Your task to perform on an android device: Show the shopping cart on bestbuy.com. Add energizer triple a to the cart on bestbuy.com Image 0: 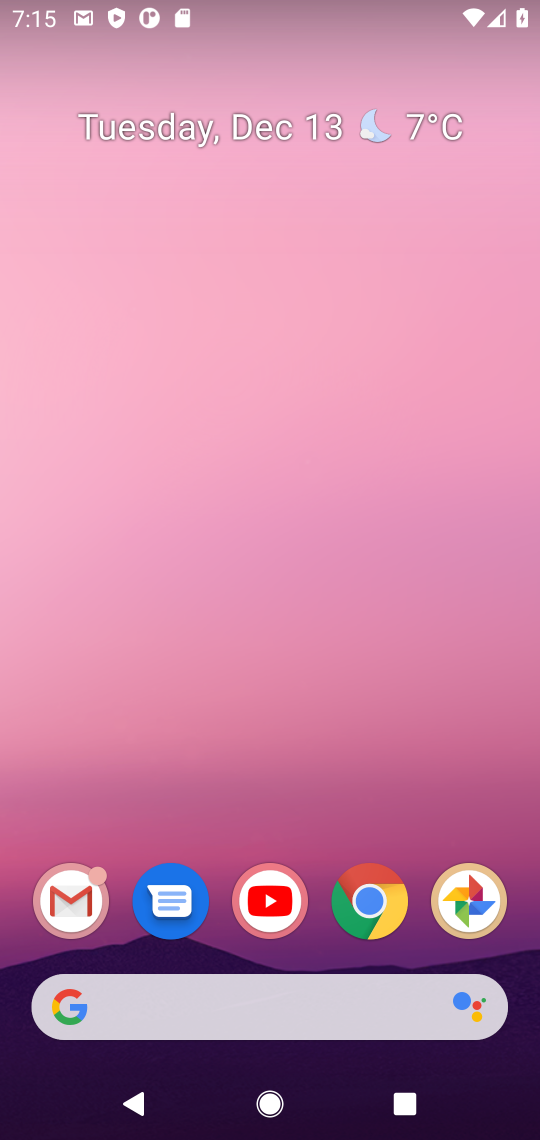
Step 0: click (374, 904)
Your task to perform on an android device: Show the shopping cart on bestbuy.com. Add energizer triple a to the cart on bestbuy.com Image 1: 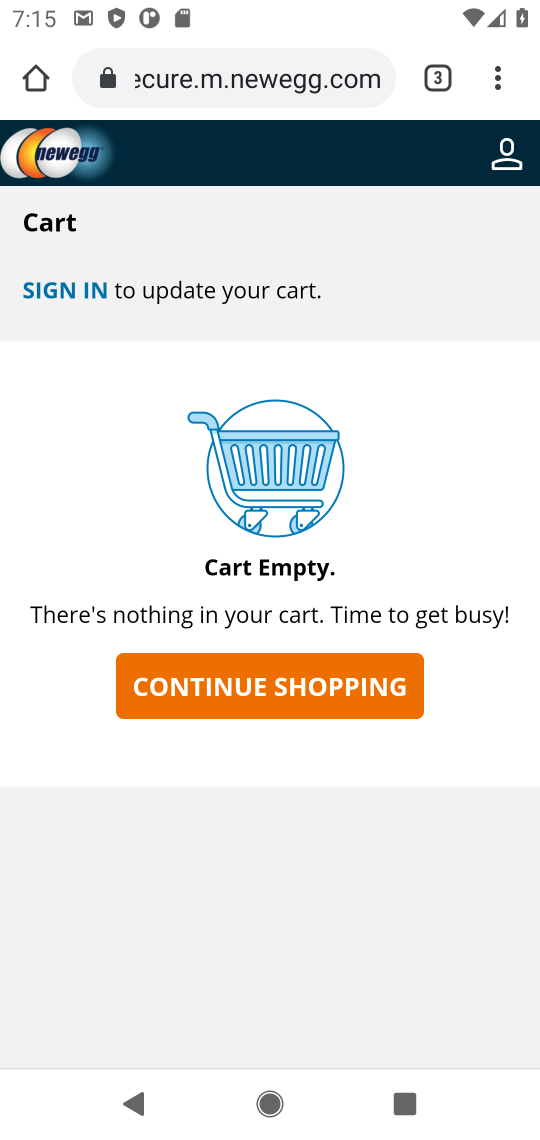
Step 1: click (431, 77)
Your task to perform on an android device: Show the shopping cart on bestbuy.com. Add energizer triple a to the cart on bestbuy.com Image 2: 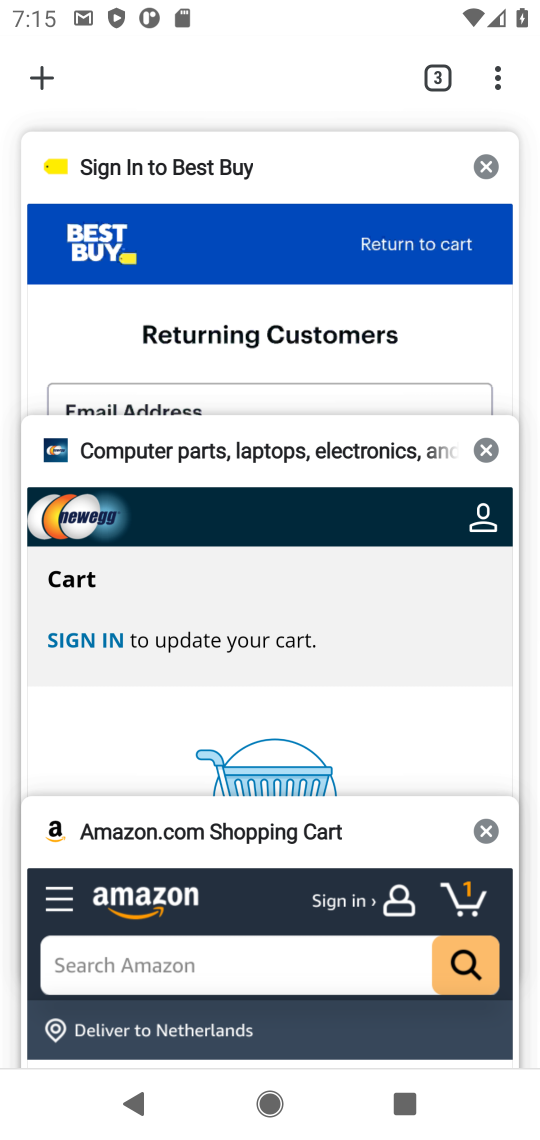
Step 2: click (282, 247)
Your task to perform on an android device: Show the shopping cart on bestbuy.com. Add energizer triple a to the cart on bestbuy.com Image 3: 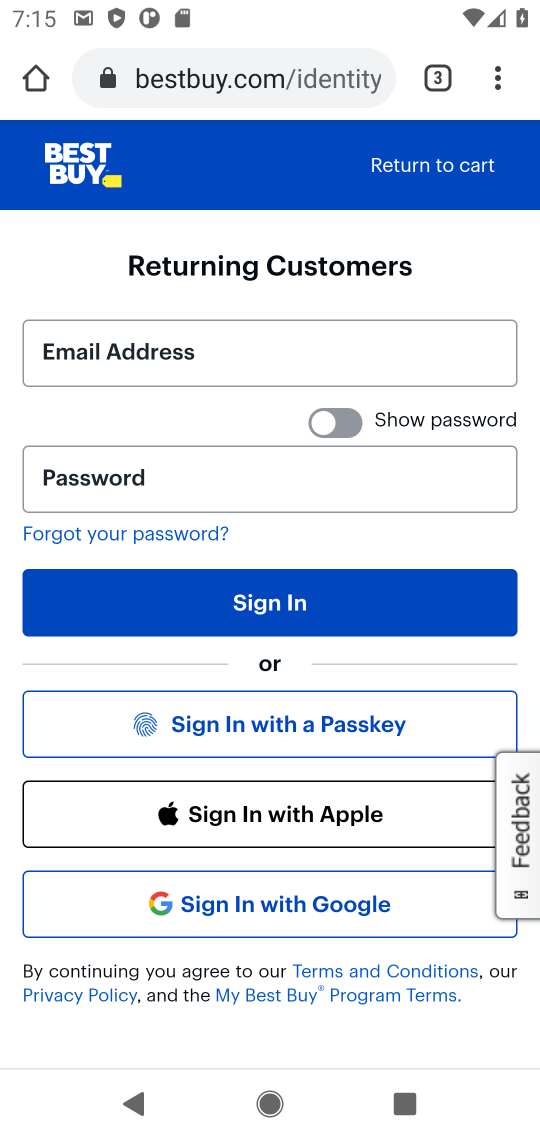
Step 3: click (430, 161)
Your task to perform on an android device: Show the shopping cart on bestbuy.com. Add energizer triple a to the cart on bestbuy.com Image 4: 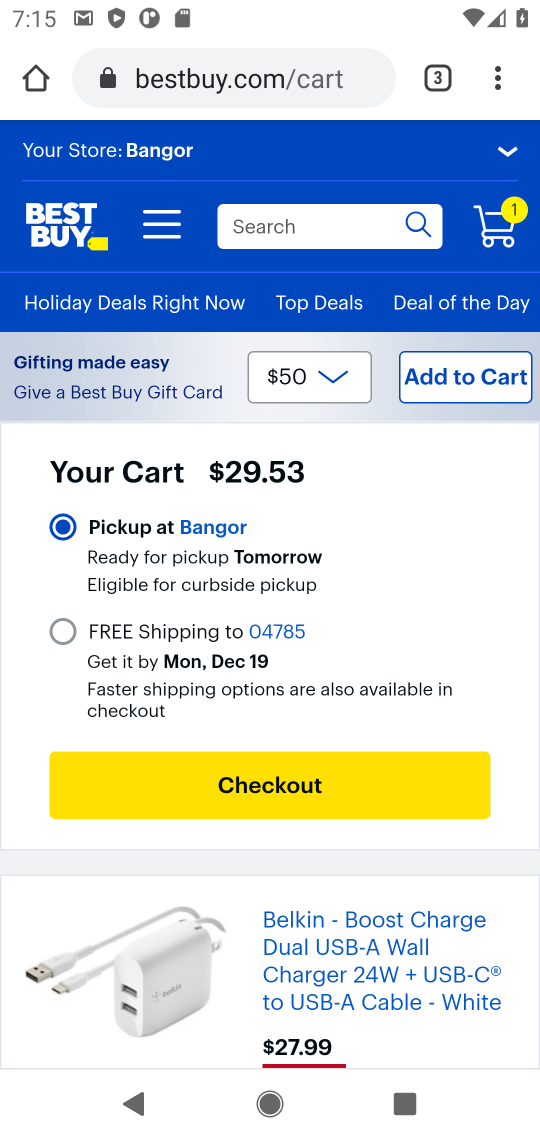
Step 4: click (301, 228)
Your task to perform on an android device: Show the shopping cart on bestbuy.com. Add energizer triple a to the cart on bestbuy.com Image 5: 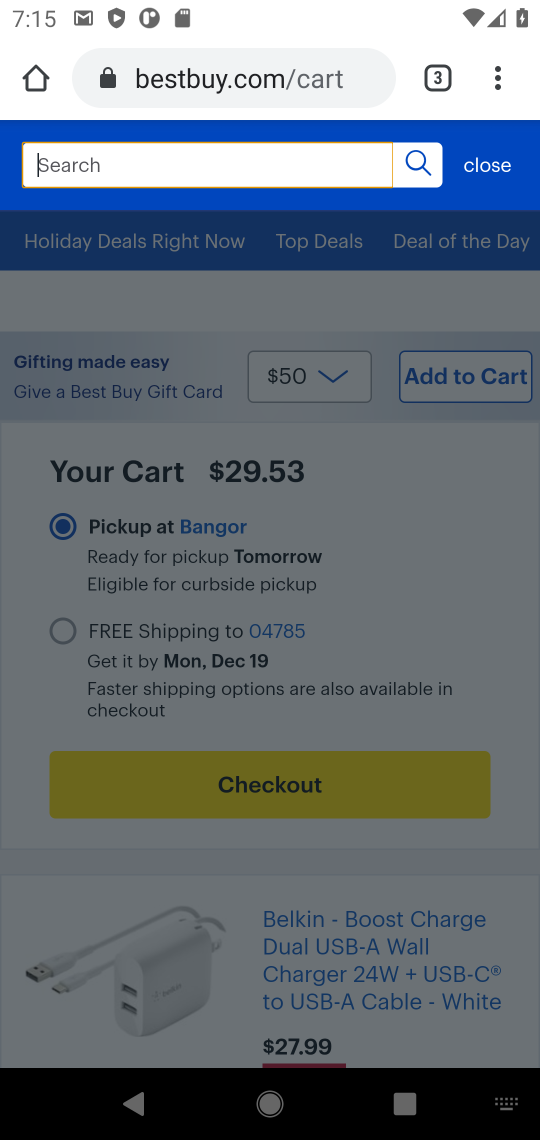
Step 5: type "energizer triple a"
Your task to perform on an android device: Show the shopping cart on bestbuy.com. Add energizer triple a to the cart on bestbuy.com Image 6: 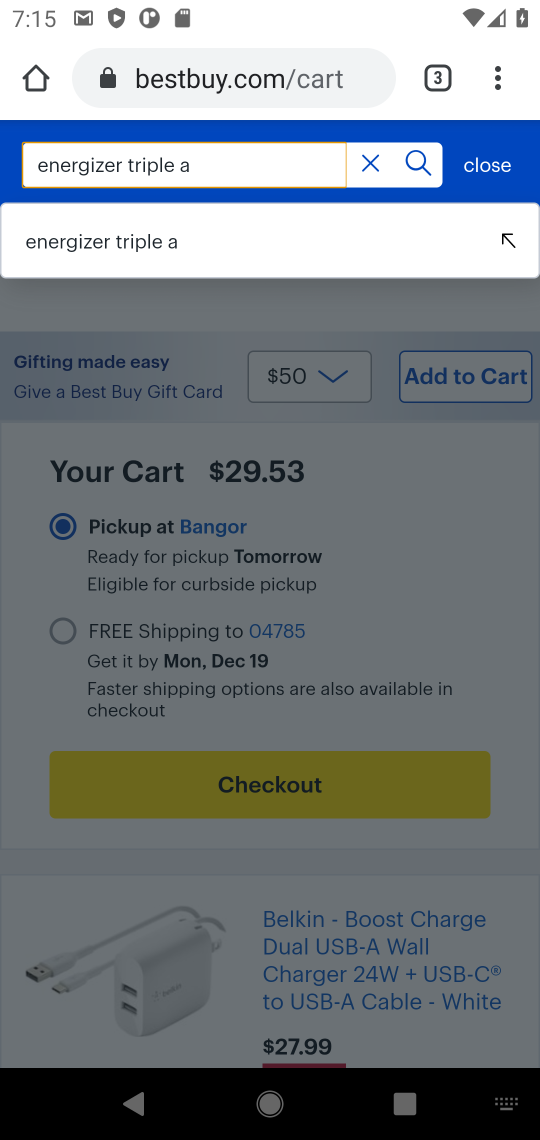
Step 6: click (141, 231)
Your task to perform on an android device: Show the shopping cart on bestbuy.com. Add energizer triple a to the cart on bestbuy.com Image 7: 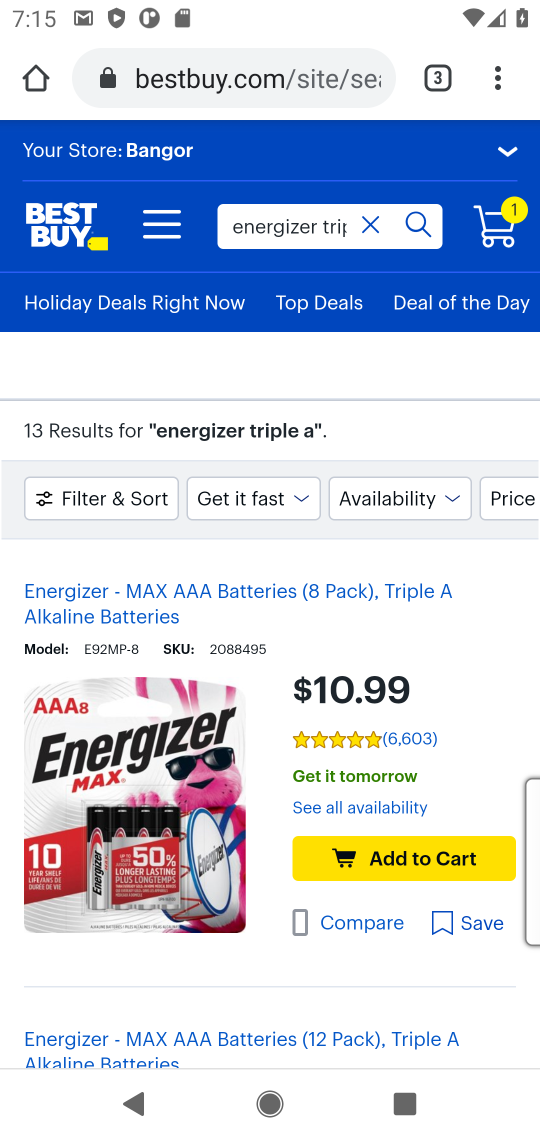
Step 7: click (403, 856)
Your task to perform on an android device: Show the shopping cart on bestbuy.com. Add energizer triple a to the cart on bestbuy.com Image 8: 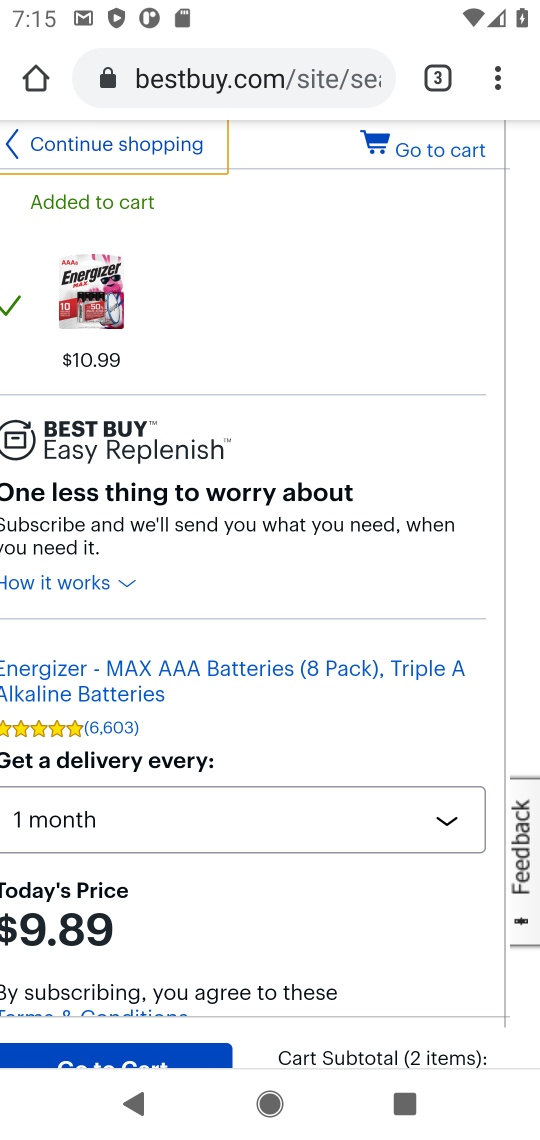
Step 8: task complete